Your task to perform on an android device: Is it going to rain this weekend? Image 0: 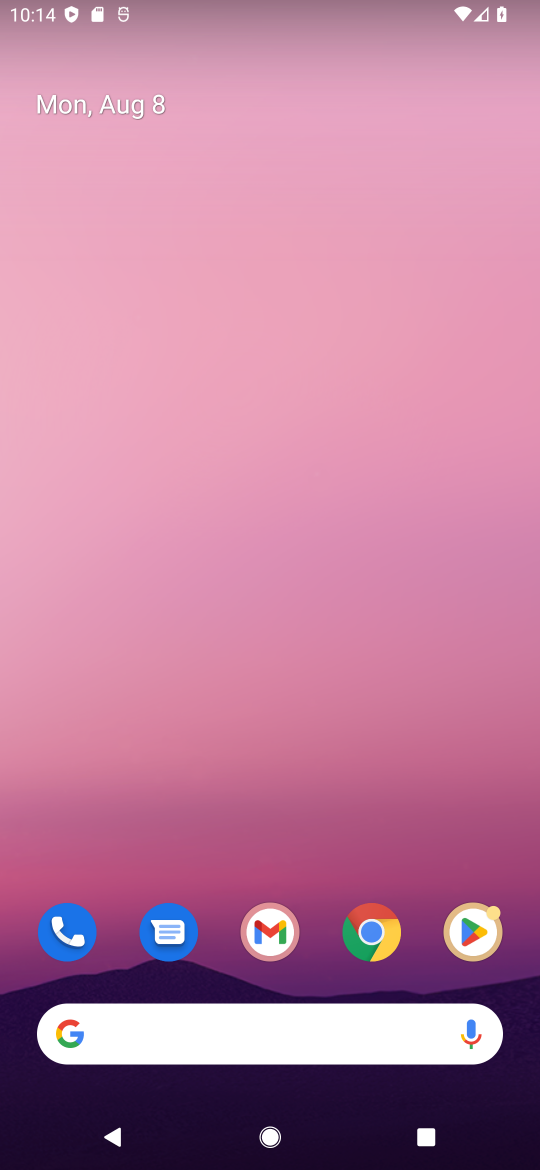
Step 0: click (175, 1021)
Your task to perform on an android device: Is it going to rain this weekend? Image 1: 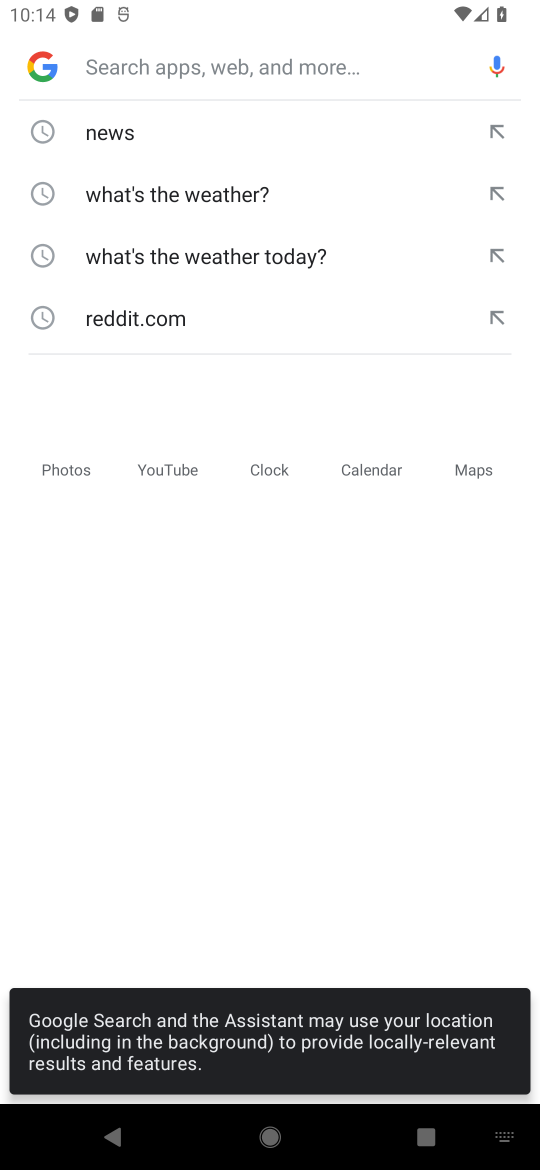
Step 1: click (169, 206)
Your task to perform on an android device: Is it going to rain this weekend? Image 2: 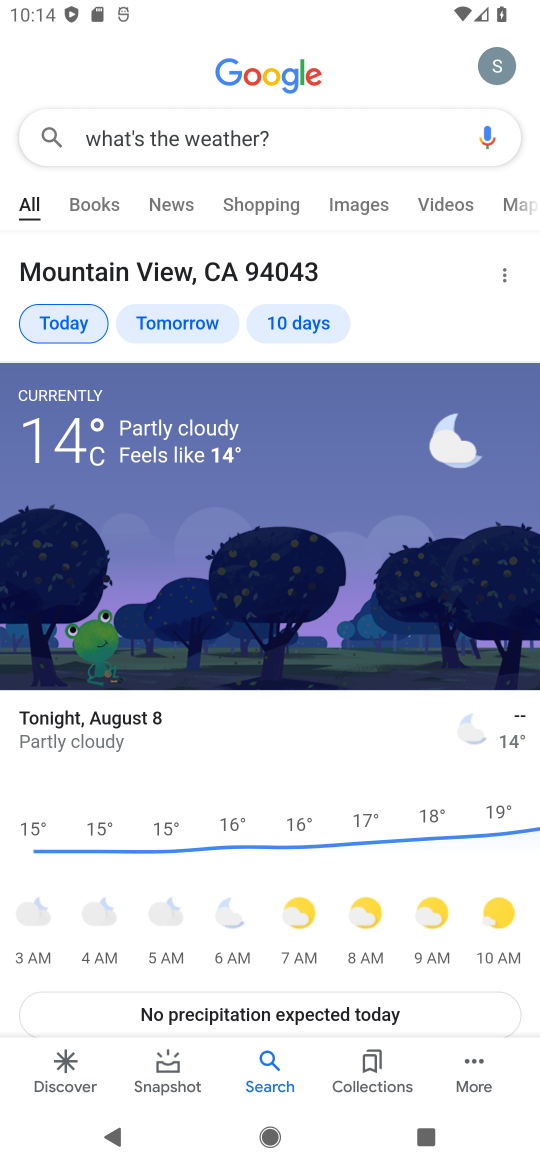
Step 2: click (251, 307)
Your task to perform on an android device: Is it going to rain this weekend? Image 3: 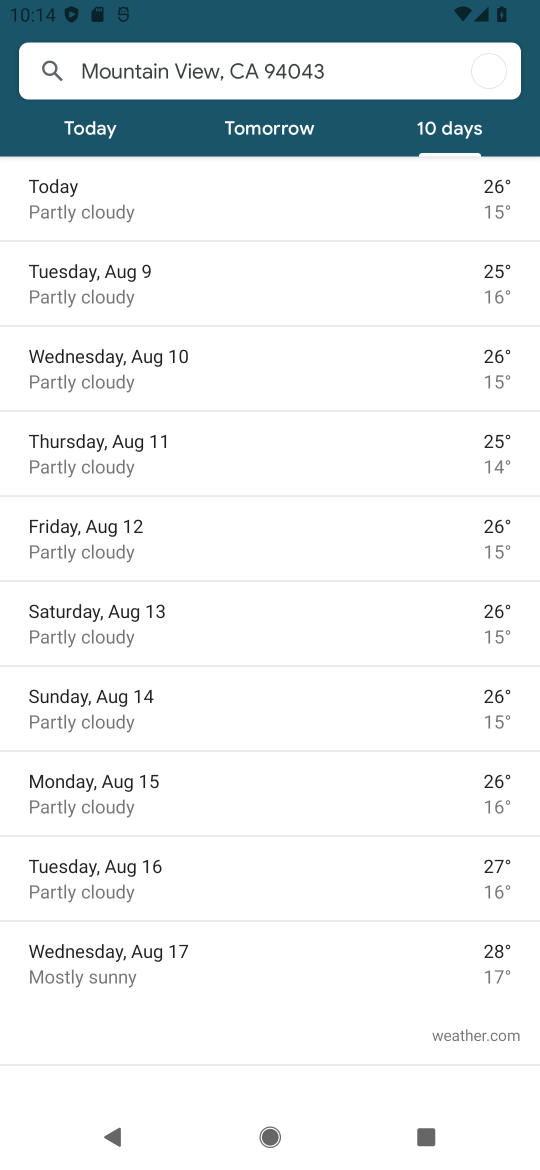
Step 3: task complete